Your task to perform on an android device: toggle notifications settings in the gmail app Image 0: 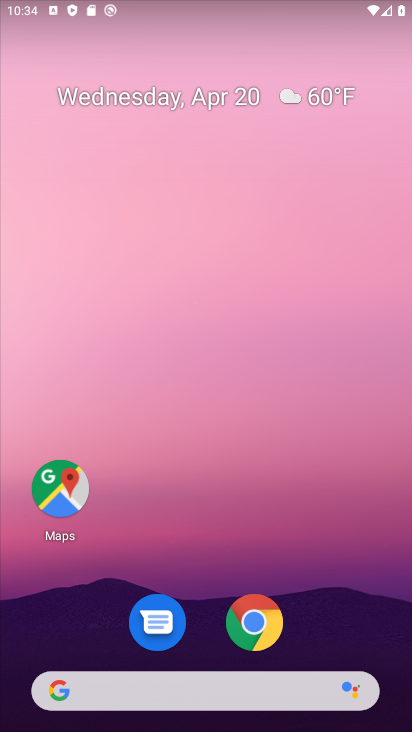
Step 0: drag from (336, 581) to (341, 81)
Your task to perform on an android device: toggle notifications settings in the gmail app Image 1: 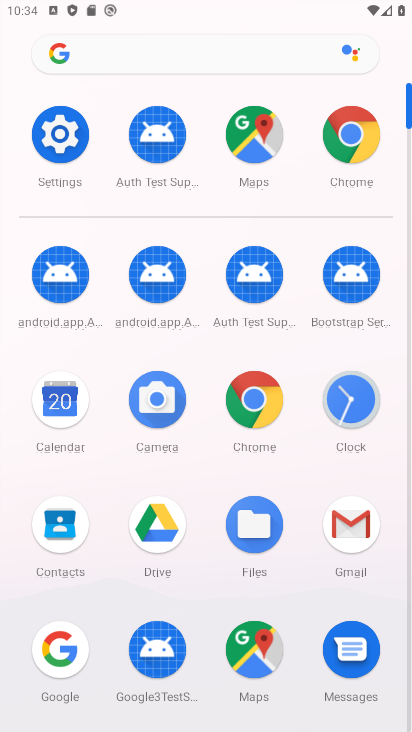
Step 1: click (345, 533)
Your task to perform on an android device: toggle notifications settings in the gmail app Image 2: 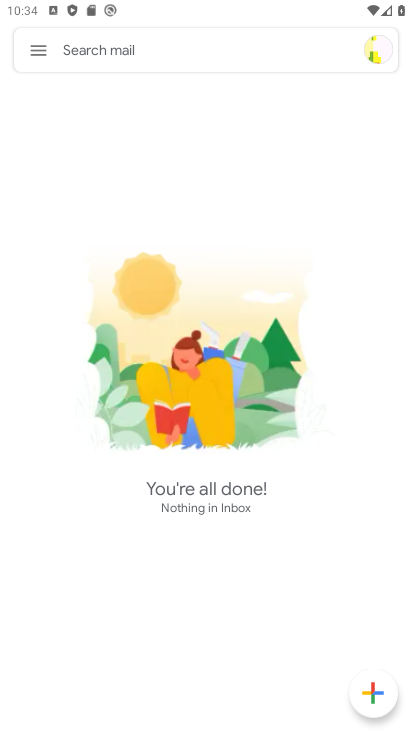
Step 2: click (25, 44)
Your task to perform on an android device: toggle notifications settings in the gmail app Image 3: 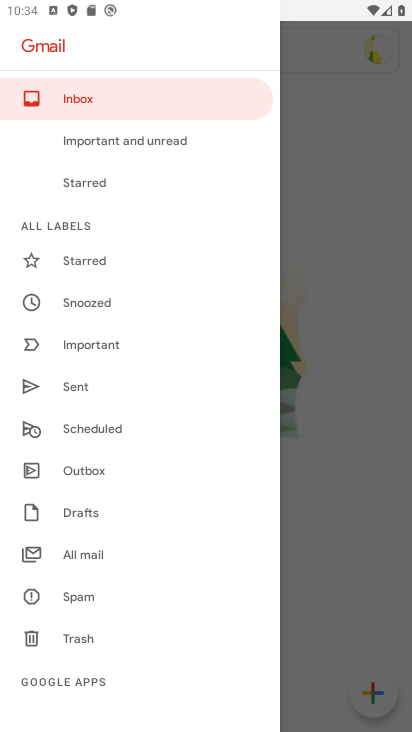
Step 3: drag from (135, 464) to (136, 180)
Your task to perform on an android device: toggle notifications settings in the gmail app Image 4: 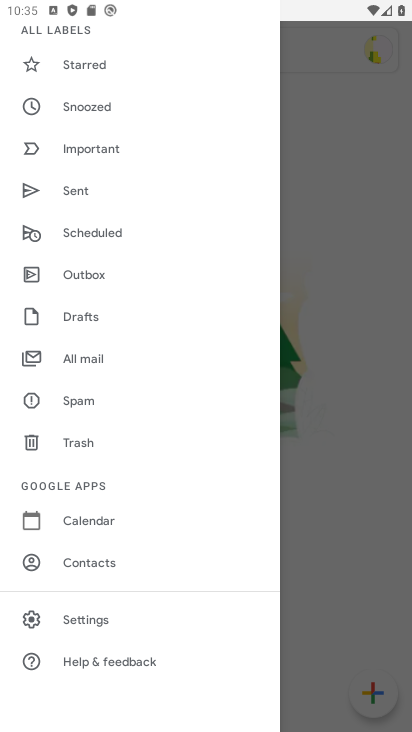
Step 4: click (94, 620)
Your task to perform on an android device: toggle notifications settings in the gmail app Image 5: 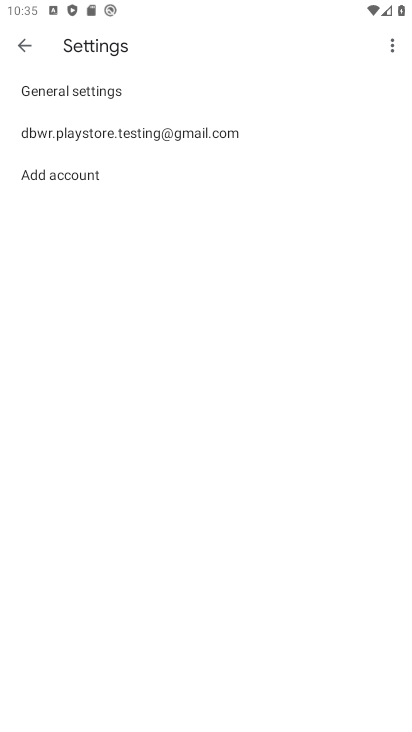
Step 5: click (79, 129)
Your task to perform on an android device: toggle notifications settings in the gmail app Image 6: 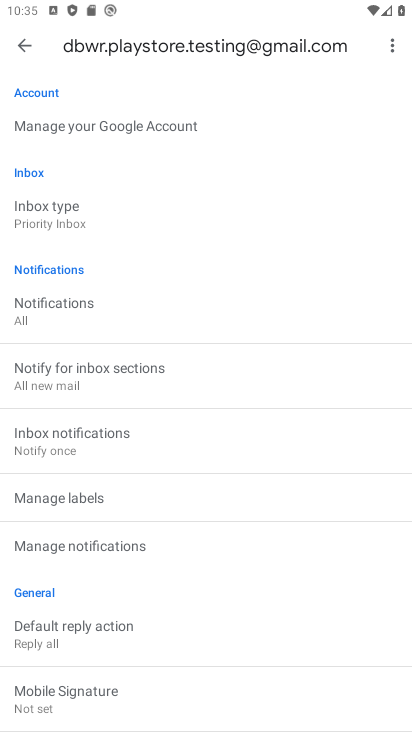
Step 6: click (30, 311)
Your task to perform on an android device: toggle notifications settings in the gmail app Image 7: 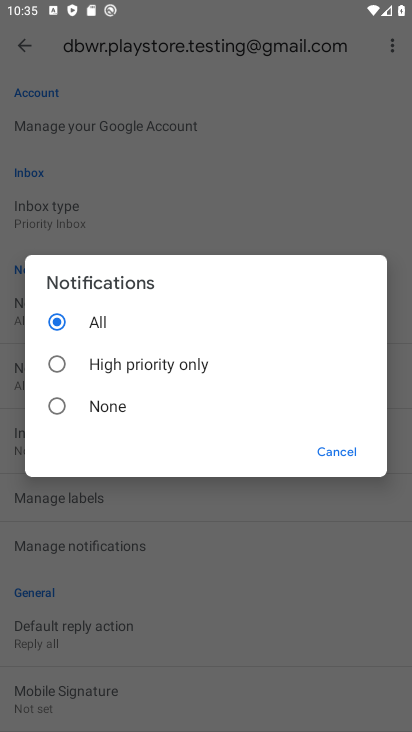
Step 7: click (62, 358)
Your task to perform on an android device: toggle notifications settings in the gmail app Image 8: 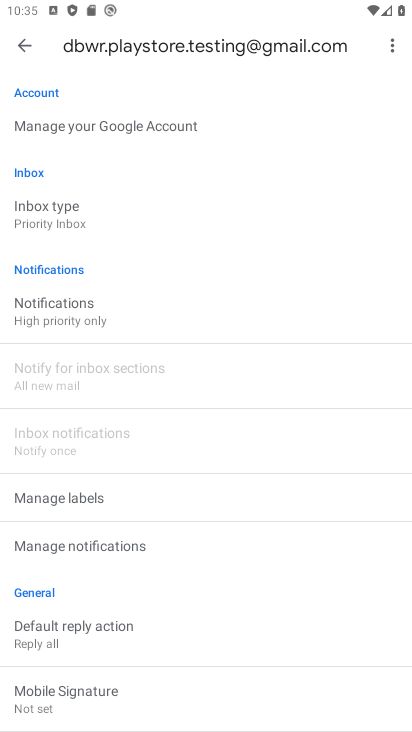
Step 8: task complete